Your task to perform on an android device: Open display settings Image 0: 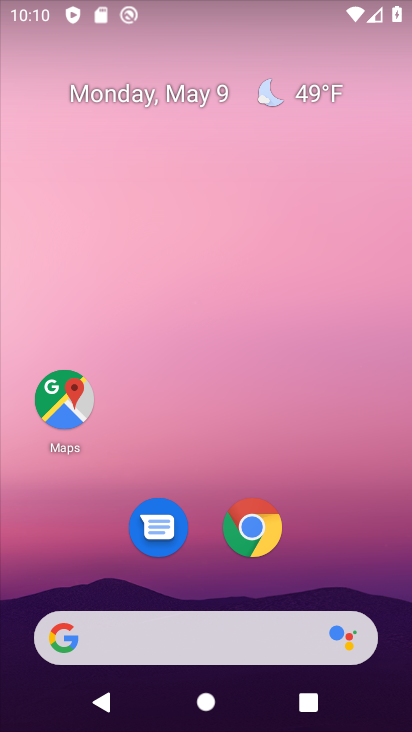
Step 0: drag from (306, 571) to (211, 48)
Your task to perform on an android device: Open display settings Image 1: 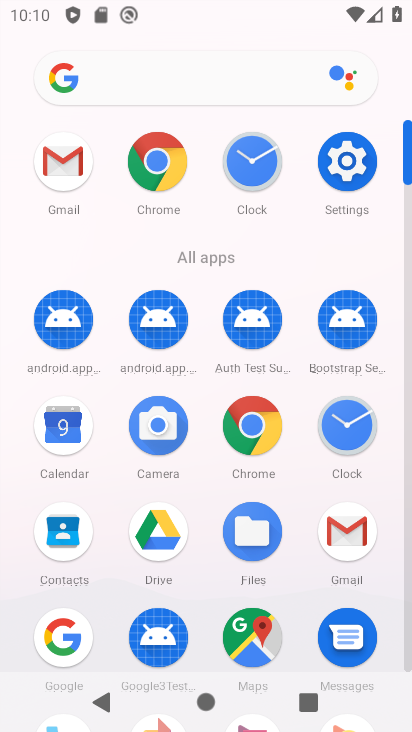
Step 1: click (344, 162)
Your task to perform on an android device: Open display settings Image 2: 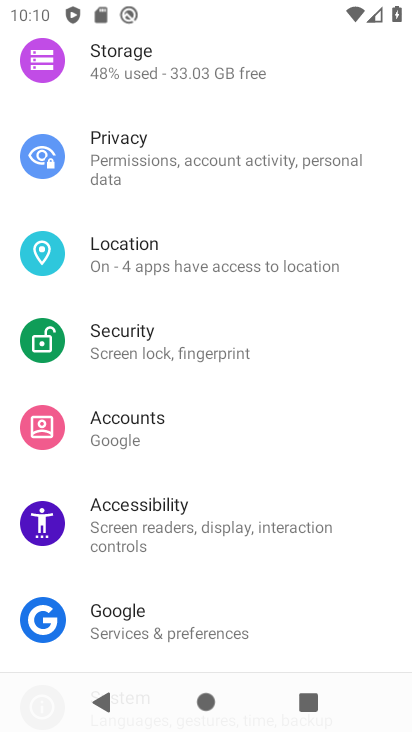
Step 2: drag from (191, 311) to (209, 389)
Your task to perform on an android device: Open display settings Image 3: 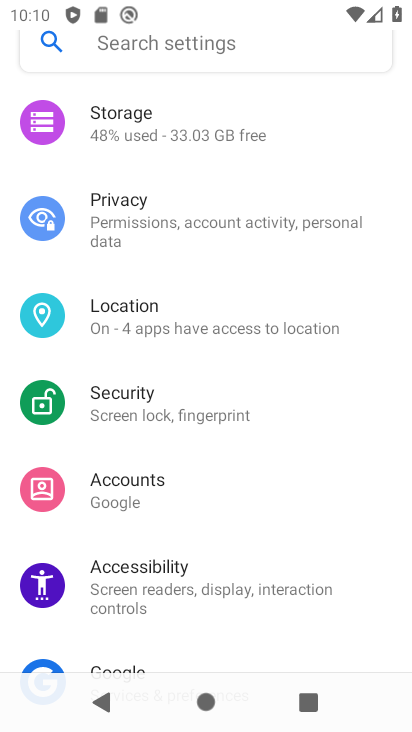
Step 3: drag from (149, 249) to (169, 350)
Your task to perform on an android device: Open display settings Image 4: 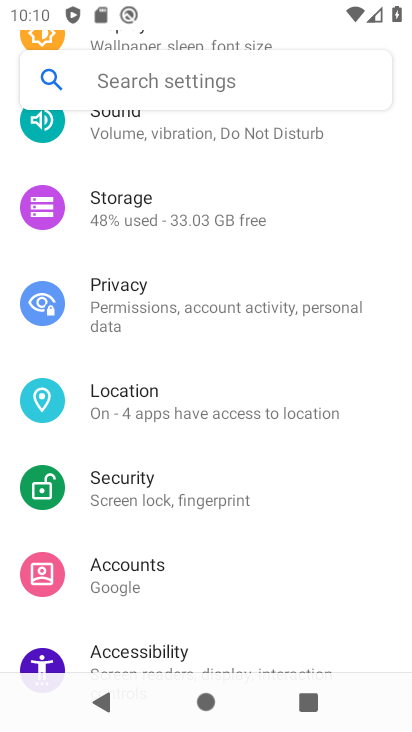
Step 4: drag from (171, 241) to (158, 354)
Your task to perform on an android device: Open display settings Image 5: 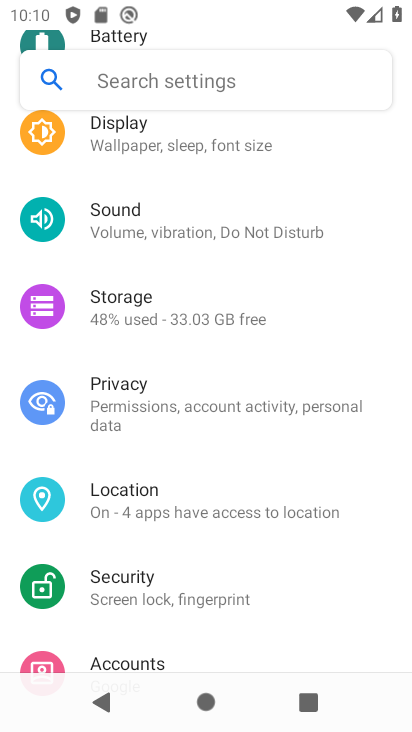
Step 5: drag from (187, 261) to (176, 371)
Your task to perform on an android device: Open display settings Image 6: 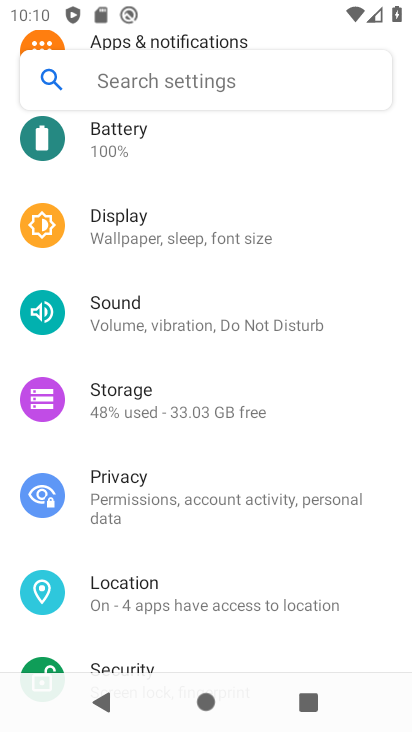
Step 6: click (144, 227)
Your task to perform on an android device: Open display settings Image 7: 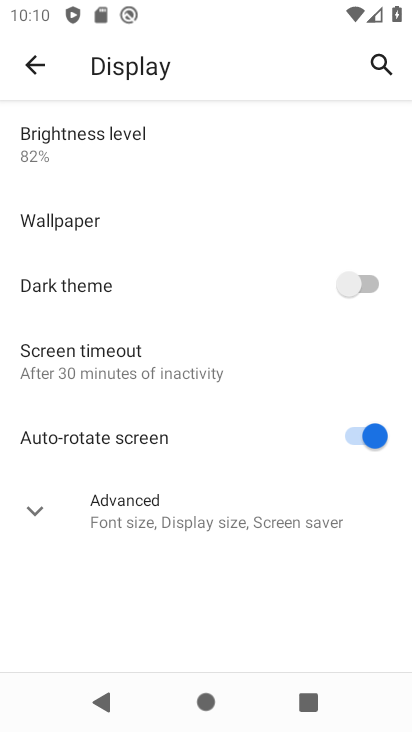
Step 7: task complete